Your task to perform on an android device: What's the weather going to be tomorrow? Image 0: 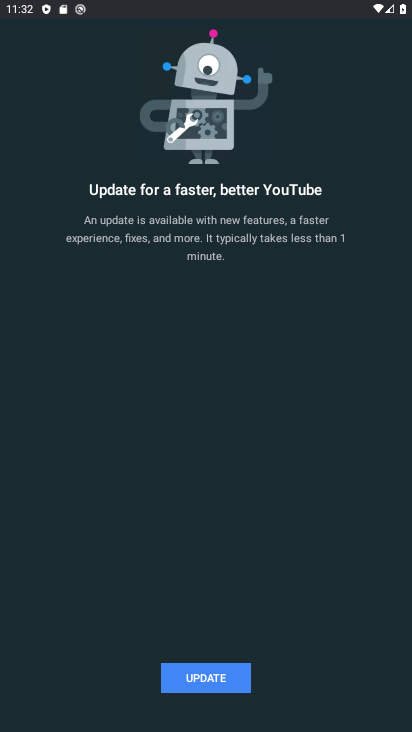
Step 0: press home button
Your task to perform on an android device: What's the weather going to be tomorrow? Image 1: 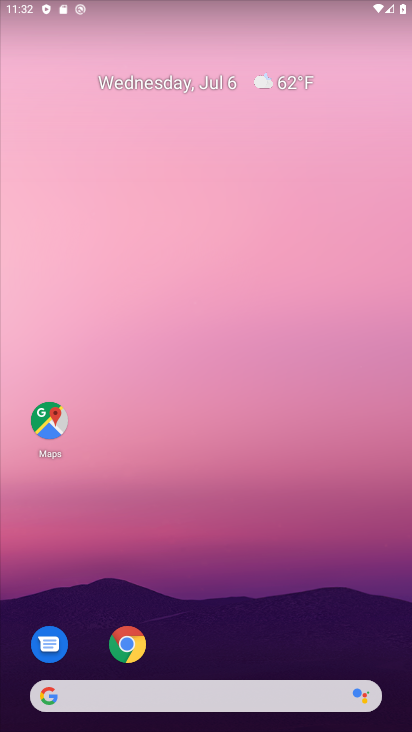
Step 1: drag from (197, 657) to (185, 164)
Your task to perform on an android device: What's the weather going to be tomorrow? Image 2: 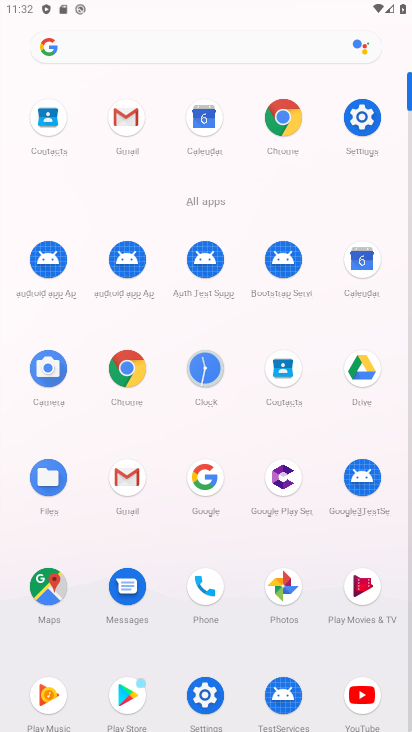
Step 2: click (128, 373)
Your task to perform on an android device: What's the weather going to be tomorrow? Image 3: 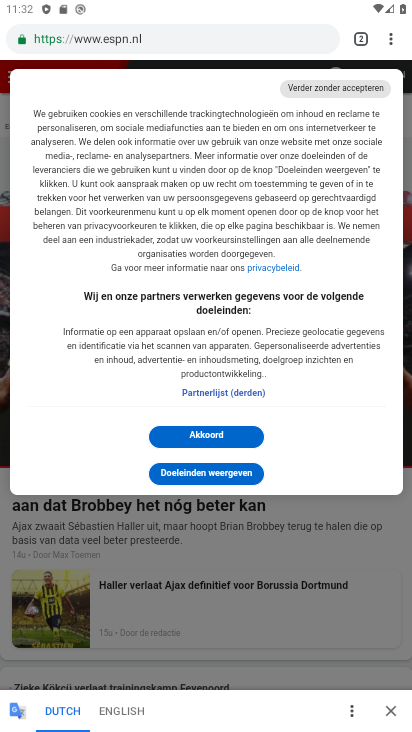
Step 3: click (131, 577)
Your task to perform on an android device: What's the weather going to be tomorrow? Image 4: 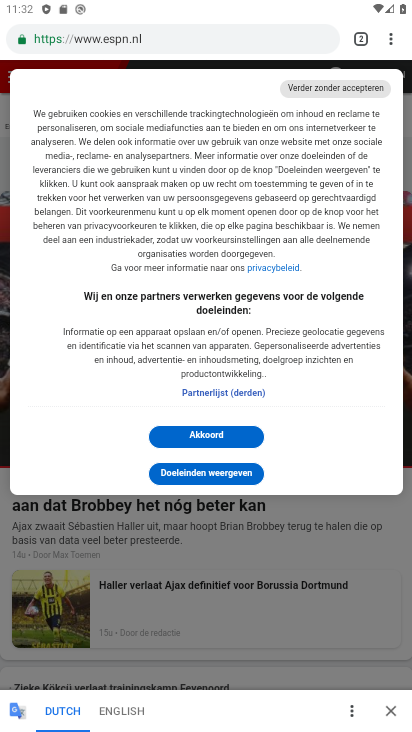
Step 4: click (357, 48)
Your task to perform on an android device: What's the weather going to be tomorrow? Image 5: 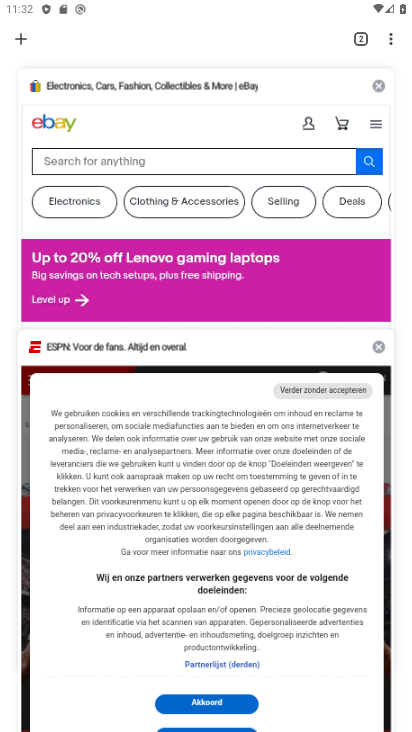
Step 5: click (29, 44)
Your task to perform on an android device: What's the weather going to be tomorrow? Image 6: 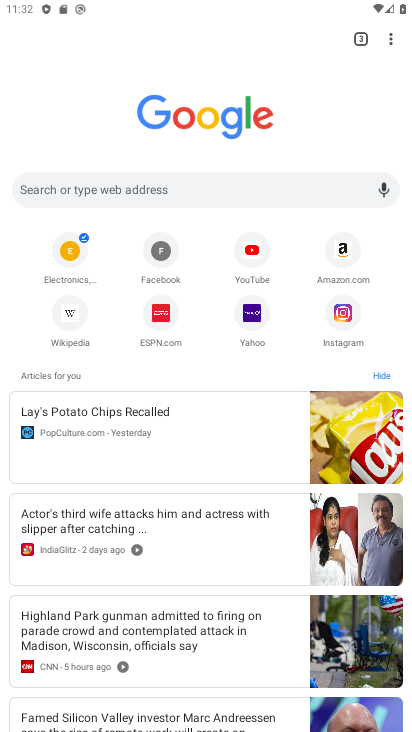
Step 6: click (125, 187)
Your task to perform on an android device: What's the weather going to be tomorrow? Image 7: 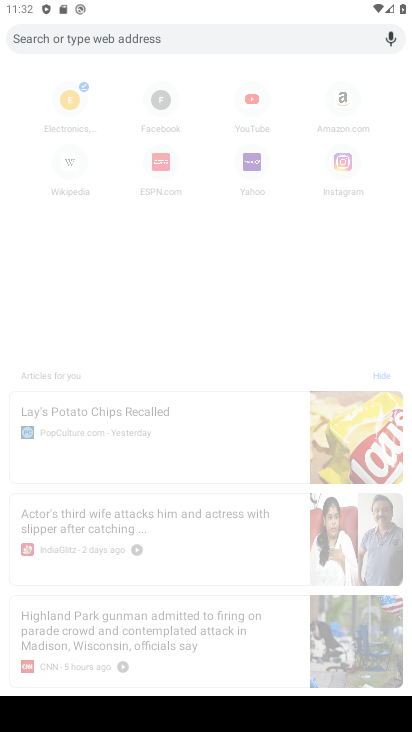
Step 7: type "weather"
Your task to perform on an android device: What's the weather going to be tomorrow? Image 8: 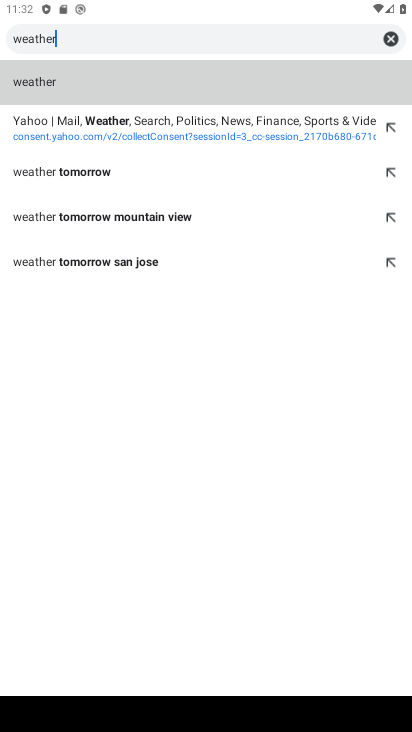
Step 8: type ""
Your task to perform on an android device: What's the weather going to be tomorrow? Image 9: 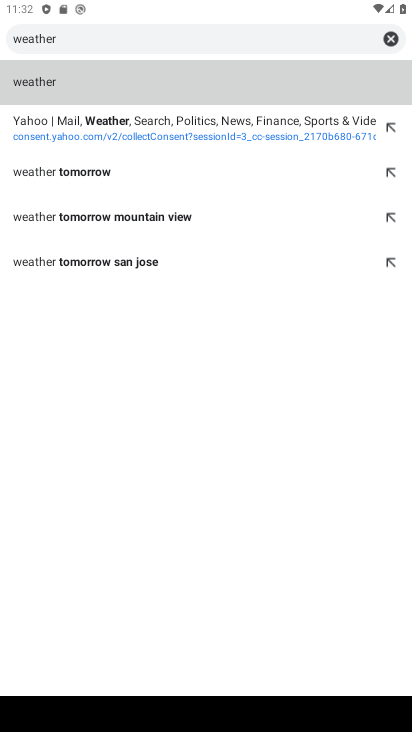
Step 9: click (159, 90)
Your task to perform on an android device: What's the weather going to be tomorrow? Image 10: 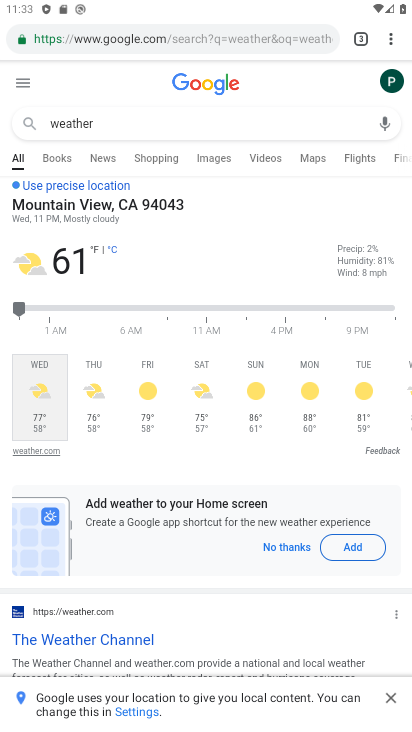
Step 10: click (91, 379)
Your task to perform on an android device: What's the weather going to be tomorrow? Image 11: 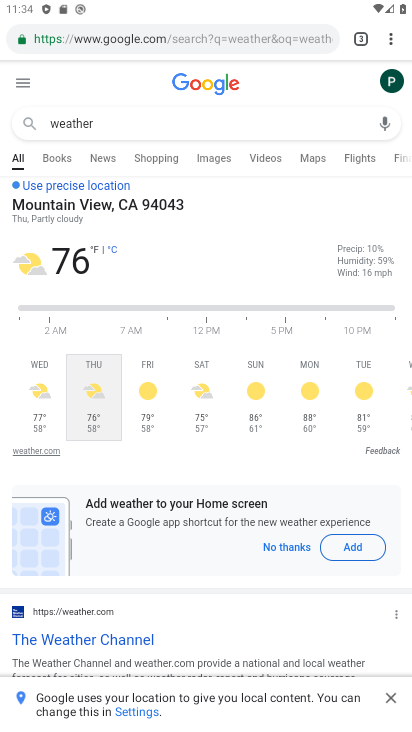
Step 11: task complete